Your task to perform on an android device: turn notification dots on Image 0: 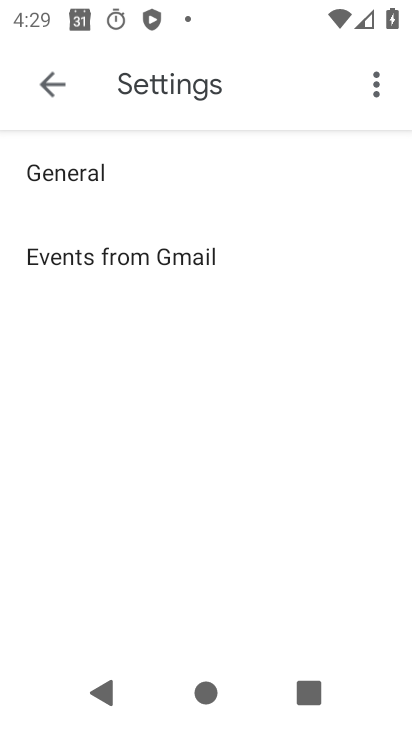
Step 0: press home button
Your task to perform on an android device: turn notification dots on Image 1: 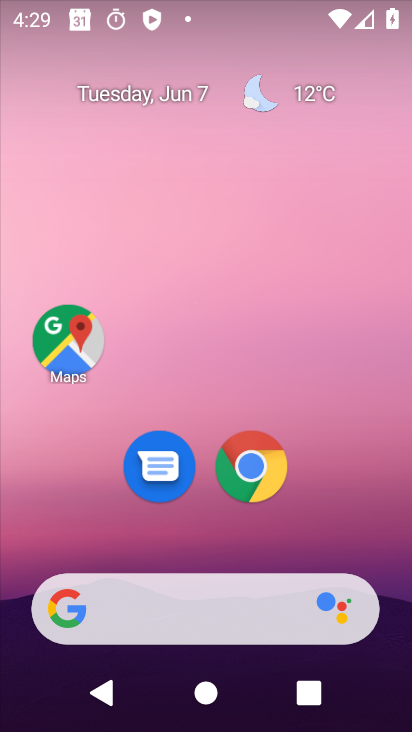
Step 1: drag from (361, 541) to (206, 54)
Your task to perform on an android device: turn notification dots on Image 2: 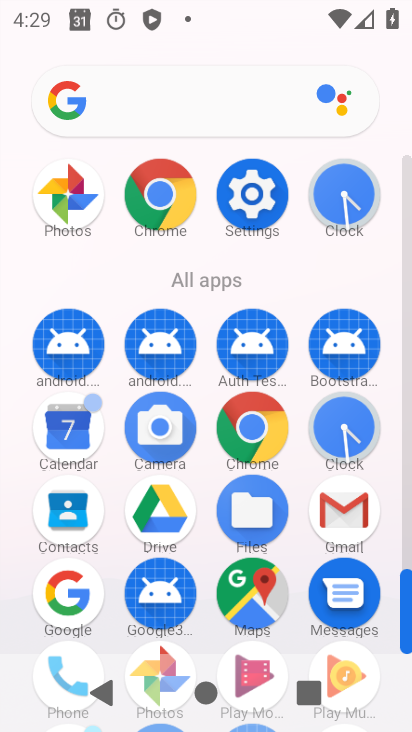
Step 2: click (240, 194)
Your task to perform on an android device: turn notification dots on Image 3: 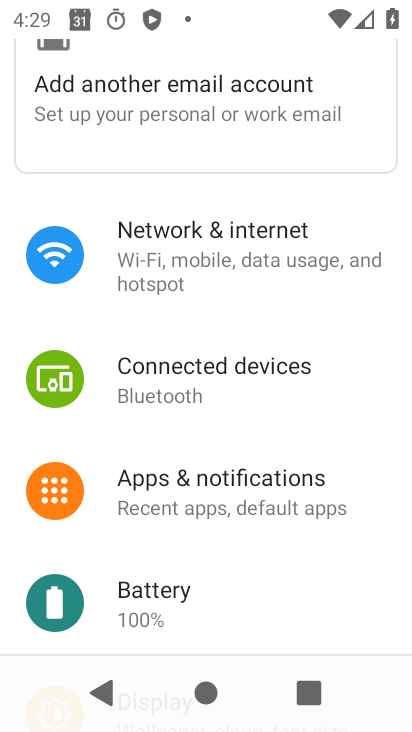
Step 3: click (290, 481)
Your task to perform on an android device: turn notification dots on Image 4: 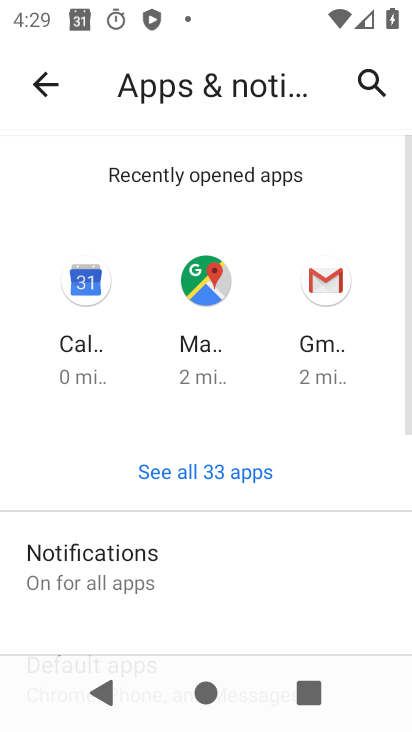
Step 4: drag from (335, 562) to (262, 222)
Your task to perform on an android device: turn notification dots on Image 5: 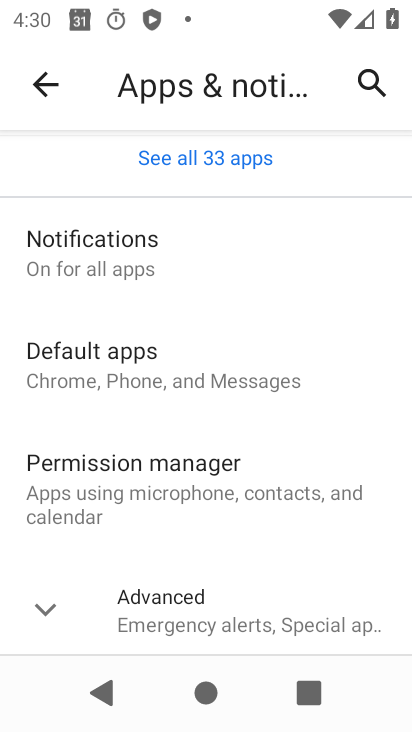
Step 5: click (133, 258)
Your task to perform on an android device: turn notification dots on Image 6: 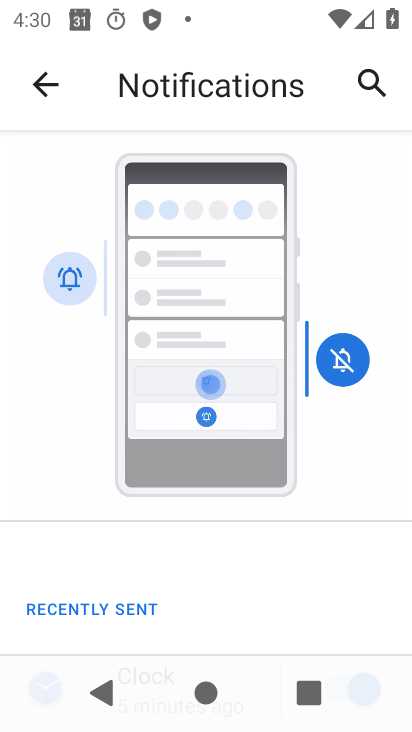
Step 6: drag from (302, 597) to (215, 82)
Your task to perform on an android device: turn notification dots on Image 7: 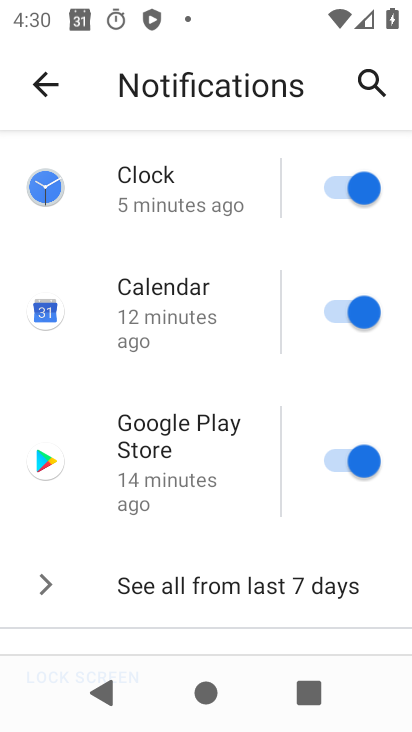
Step 7: drag from (298, 505) to (207, 38)
Your task to perform on an android device: turn notification dots on Image 8: 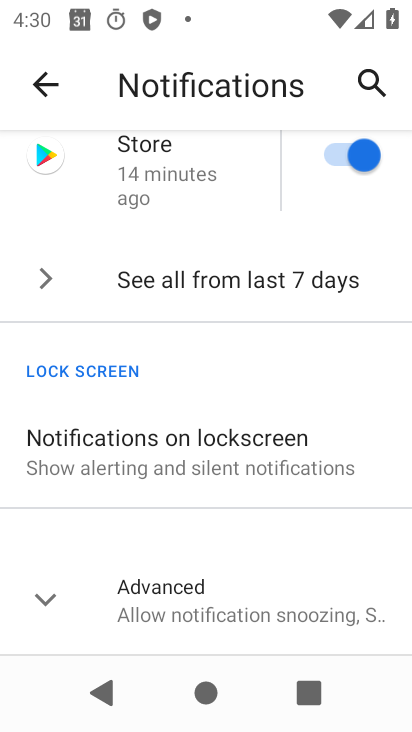
Step 8: drag from (264, 552) to (191, 207)
Your task to perform on an android device: turn notification dots on Image 9: 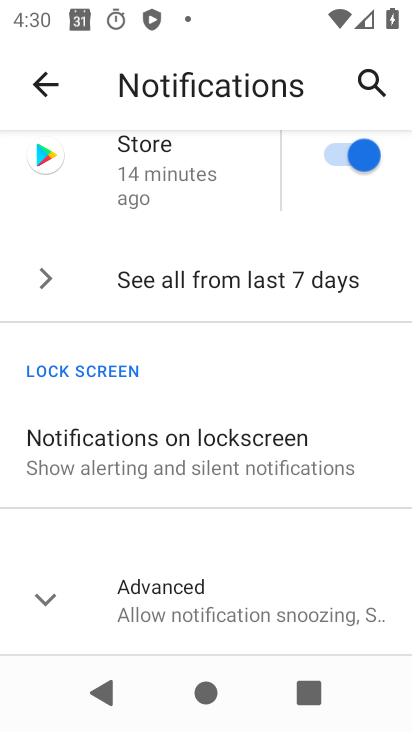
Step 9: click (269, 608)
Your task to perform on an android device: turn notification dots on Image 10: 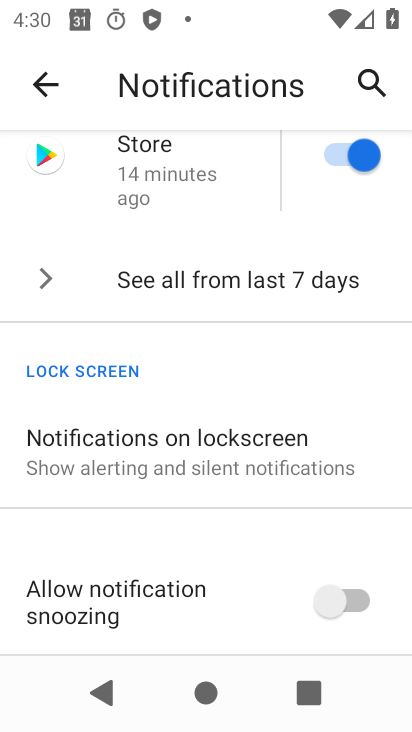
Step 10: task complete